Your task to perform on an android device: turn on priority inbox in the gmail app Image 0: 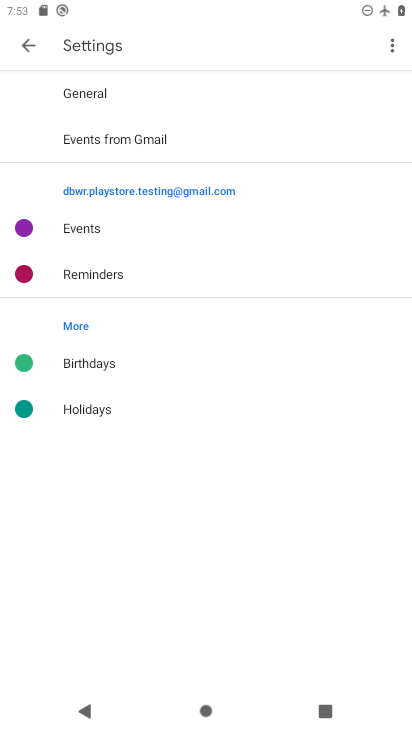
Step 0: press home button
Your task to perform on an android device: turn on priority inbox in the gmail app Image 1: 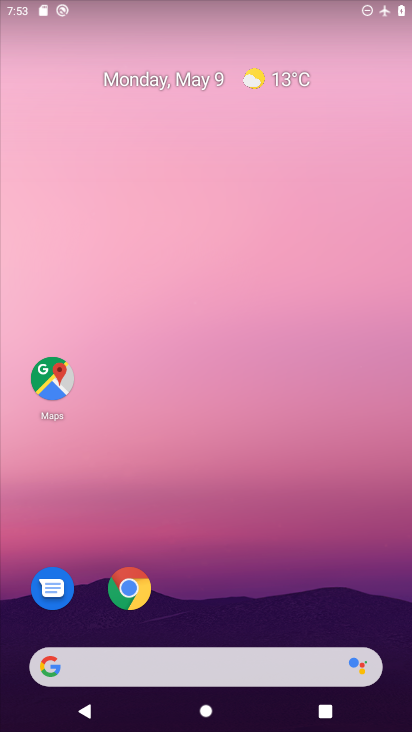
Step 1: drag from (333, 567) to (305, 197)
Your task to perform on an android device: turn on priority inbox in the gmail app Image 2: 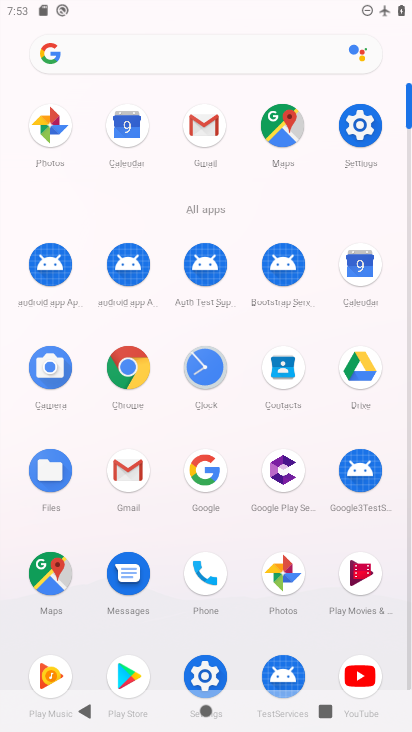
Step 2: click (208, 132)
Your task to perform on an android device: turn on priority inbox in the gmail app Image 3: 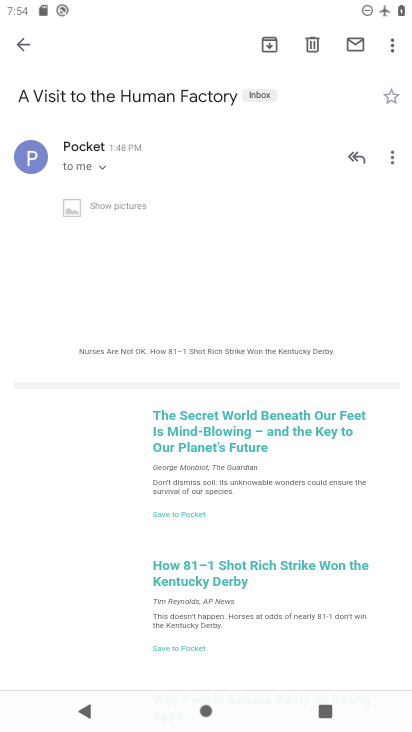
Step 3: click (16, 59)
Your task to perform on an android device: turn on priority inbox in the gmail app Image 4: 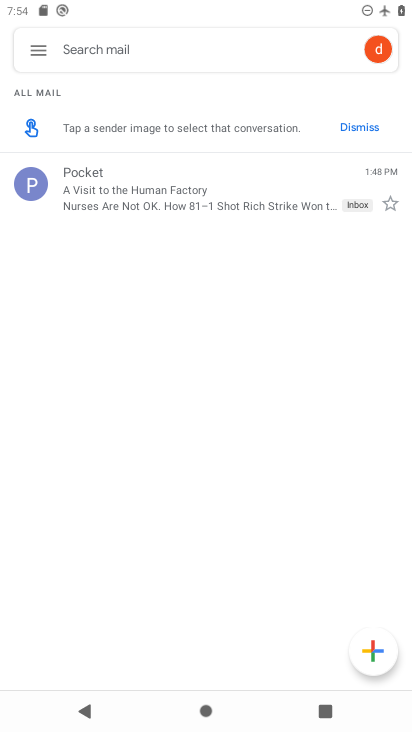
Step 4: click (25, 42)
Your task to perform on an android device: turn on priority inbox in the gmail app Image 5: 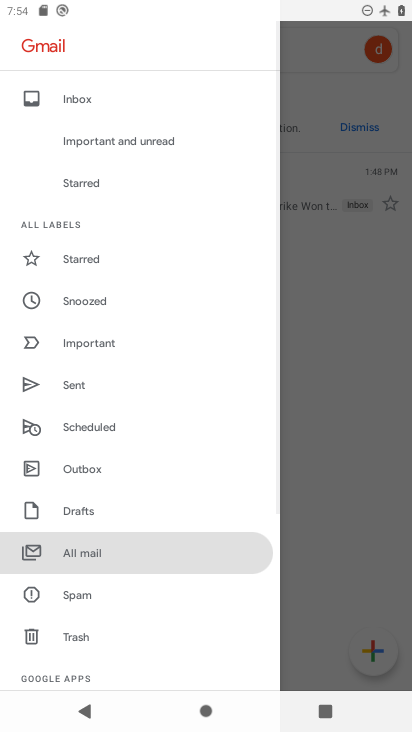
Step 5: drag from (163, 618) to (170, 272)
Your task to perform on an android device: turn on priority inbox in the gmail app Image 6: 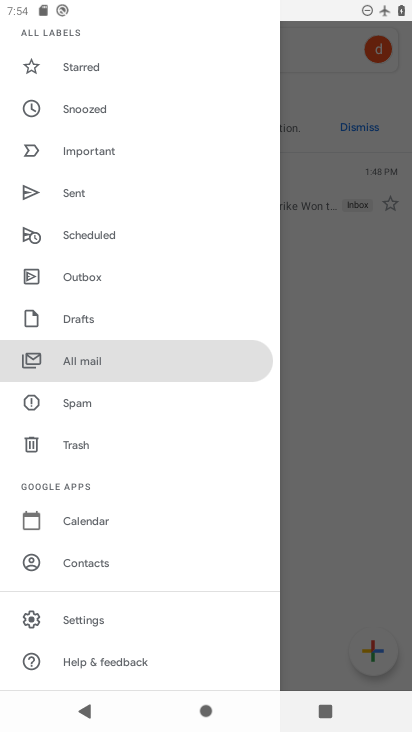
Step 6: click (68, 620)
Your task to perform on an android device: turn on priority inbox in the gmail app Image 7: 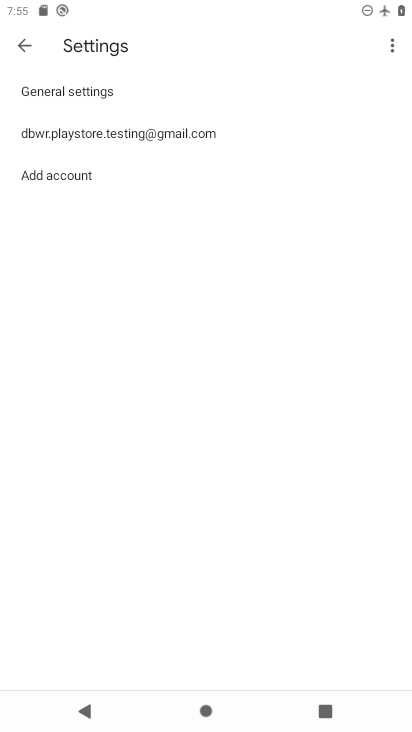
Step 7: click (94, 125)
Your task to perform on an android device: turn on priority inbox in the gmail app Image 8: 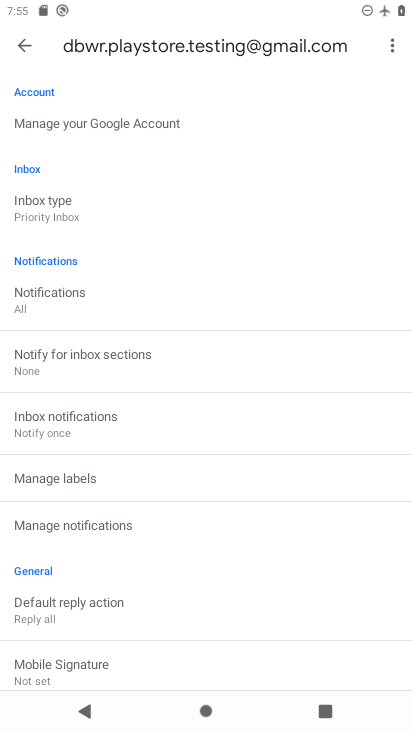
Step 8: task complete